Your task to perform on an android device: What's on my calendar today? Image 0: 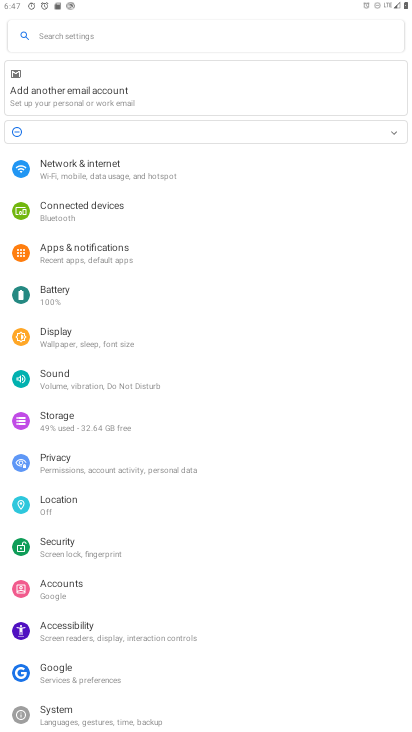
Step 0: press home button
Your task to perform on an android device: What's on my calendar today? Image 1: 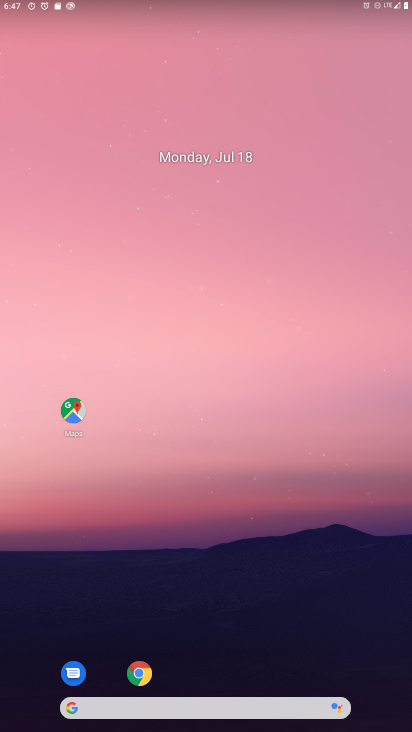
Step 1: drag from (214, 541) to (207, 200)
Your task to perform on an android device: What's on my calendar today? Image 2: 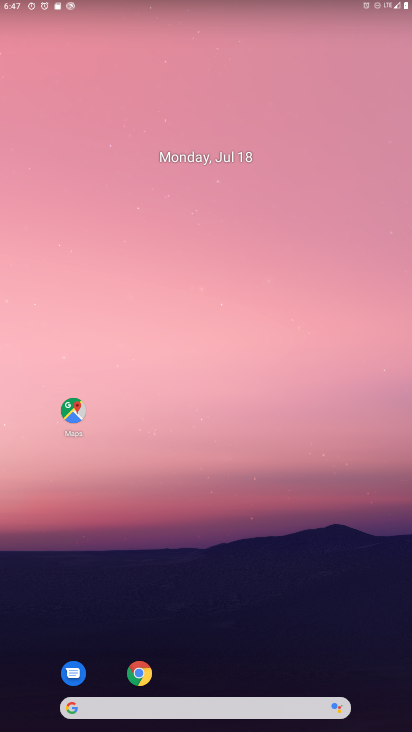
Step 2: drag from (242, 605) to (239, 192)
Your task to perform on an android device: What's on my calendar today? Image 3: 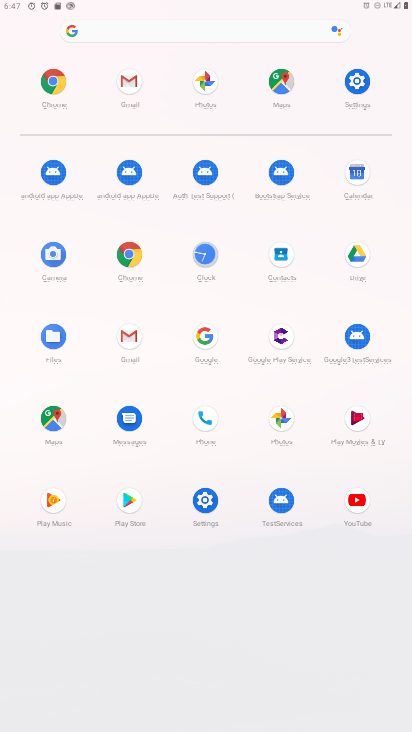
Step 3: click (358, 174)
Your task to perform on an android device: What's on my calendar today? Image 4: 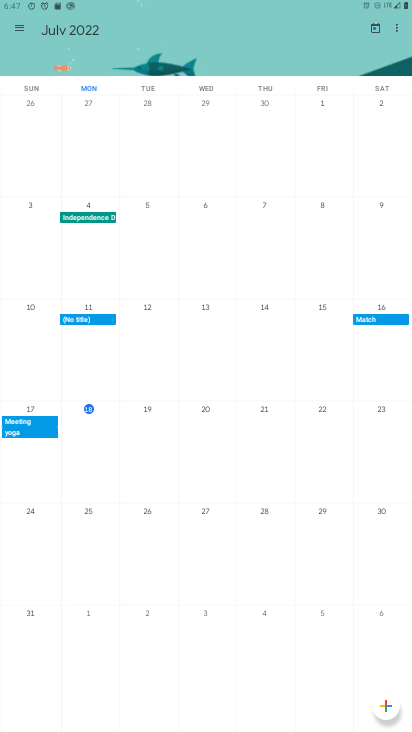
Step 4: task complete